Your task to perform on an android device: Open Amazon Image 0: 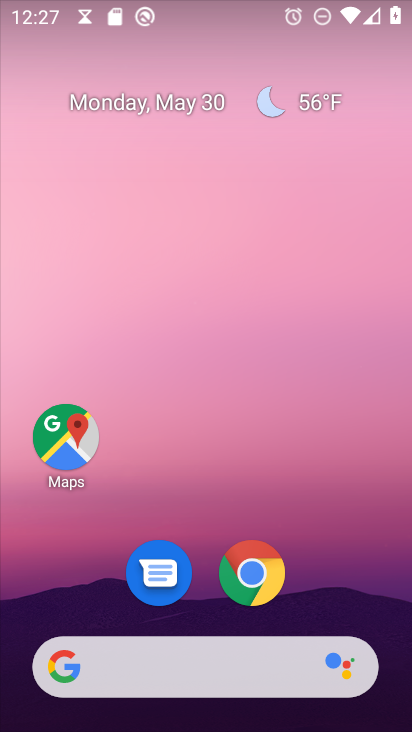
Step 0: drag from (310, 665) to (319, 16)
Your task to perform on an android device: Open Amazon Image 1: 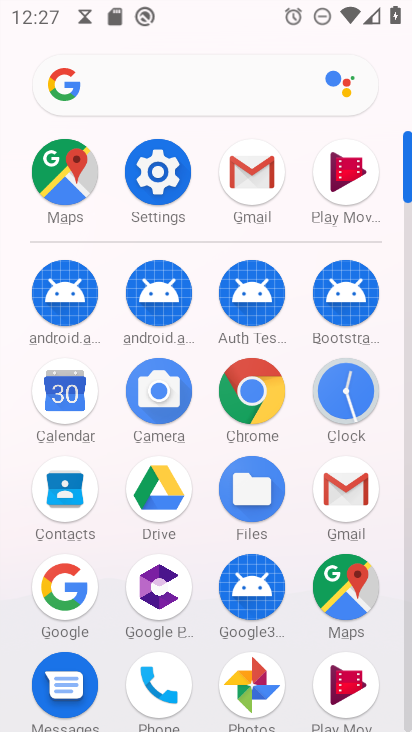
Step 1: click (257, 398)
Your task to perform on an android device: Open Amazon Image 2: 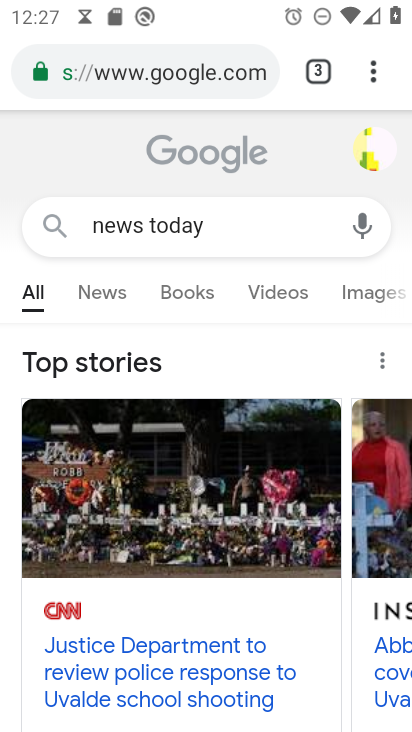
Step 2: click (366, 72)
Your task to perform on an android device: Open Amazon Image 3: 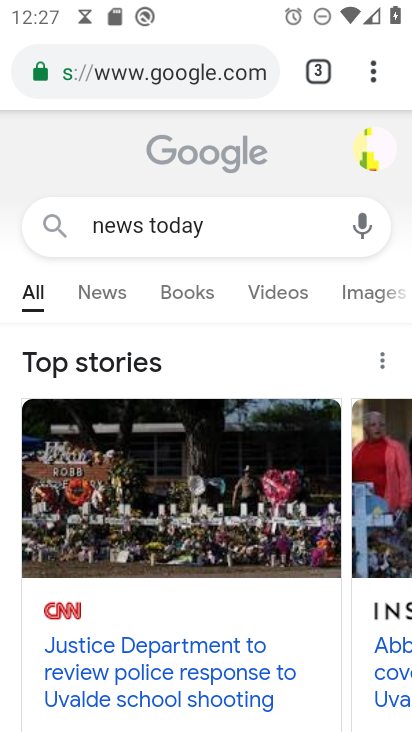
Step 3: drag from (367, 75) to (184, 144)
Your task to perform on an android device: Open Amazon Image 4: 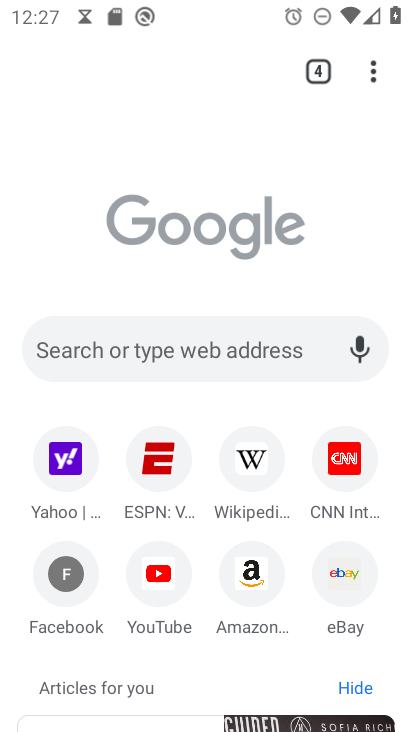
Step 4: click (257, 581)
Your task to perform on an android device: Open Amazon Image 5: 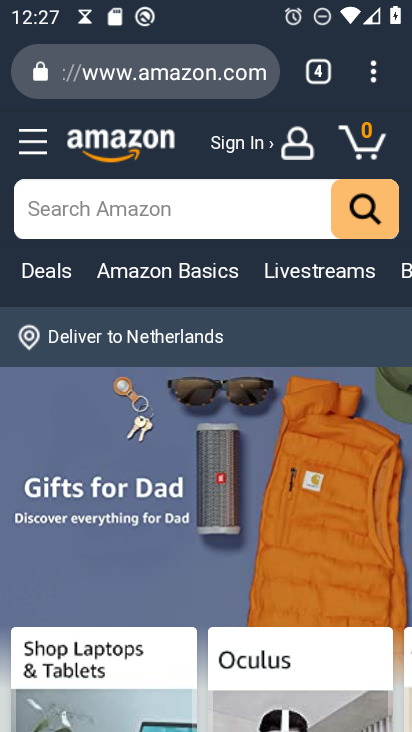
Step 5: task complete